Your task to perform on an android device: Open Youtube and go to the subscriptions tab Image 0: 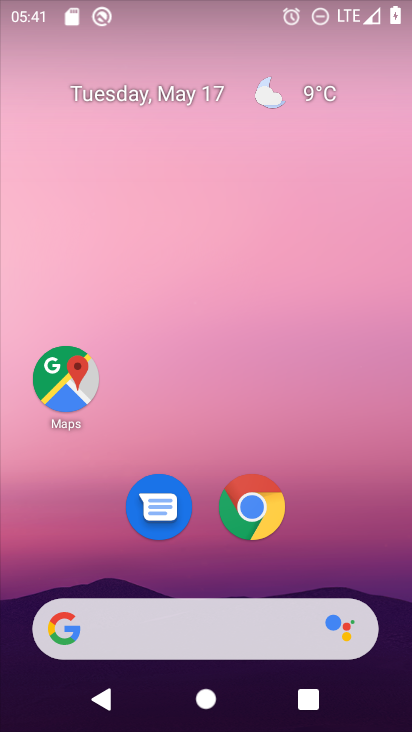
Step 0: drag from (315, 507) to (245, 75)
Your task to perform on an android device: Open Youtube and go to the subscriptions tab Image 1: 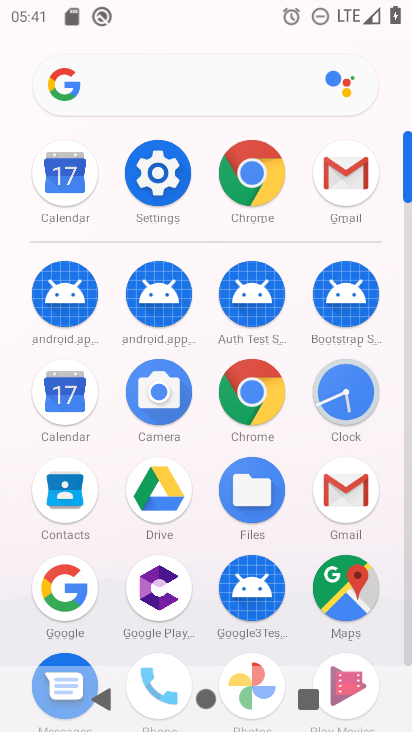
Step 1: drag from (289, 639) to (255, 168)
Your task to perform on an android device: Open Youtube and go to the subscriptions tab Image 2: 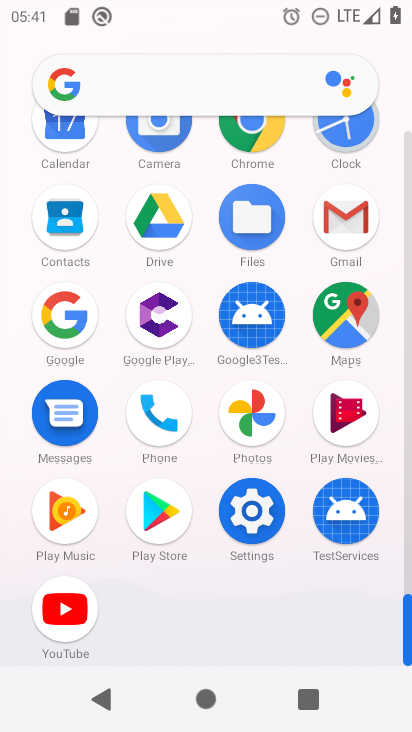
Step 2: click (81, 607)
Your task to perform on an android device: Open Youtube and go to the subscriptions tab Image 3: 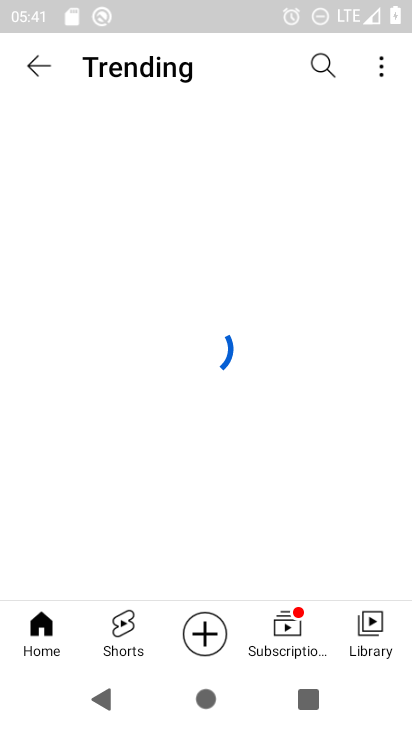
Step 3: click (293, 631)
Your task to perform on an android device: Open Youtube and go to the subscriptions tab Image 4: 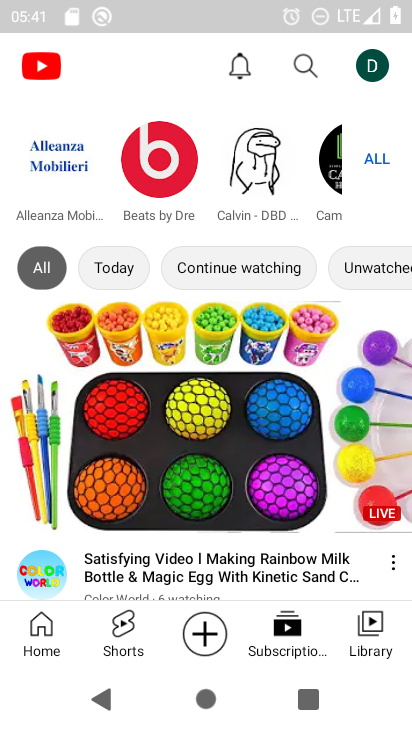
Step 4: task complete